Your task to perform on an android device: Open network settings Image 0: 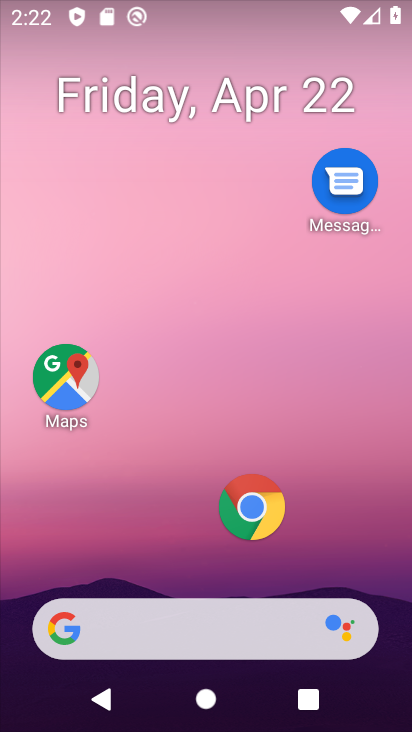
Step 0: drag from (210, 536) to (231, 8)
Your task to perform on an android device: Open network settings Image 1: 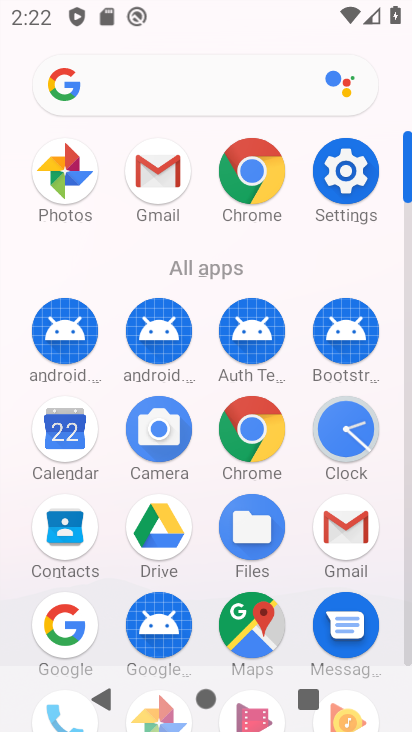
Step 1: click (344, 190)
Your task to perform on an android device: Open network settings Image 2: 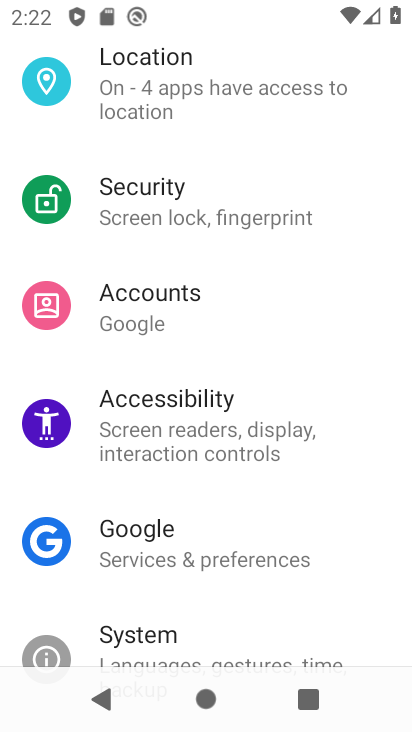
Step 2: drag from (164, 193) to (168, 339)
Your task to perform on an android device: Open network settings Image 3: 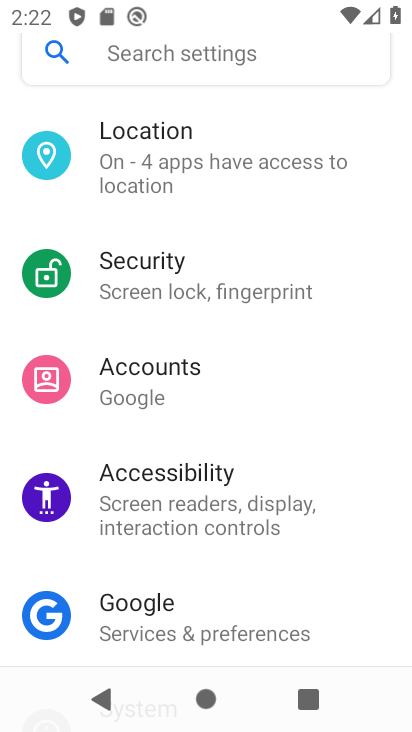
Step 3: drag from (184, 248) to (186, 422)
Your task to perform on an android device: Open network settings Image 4: 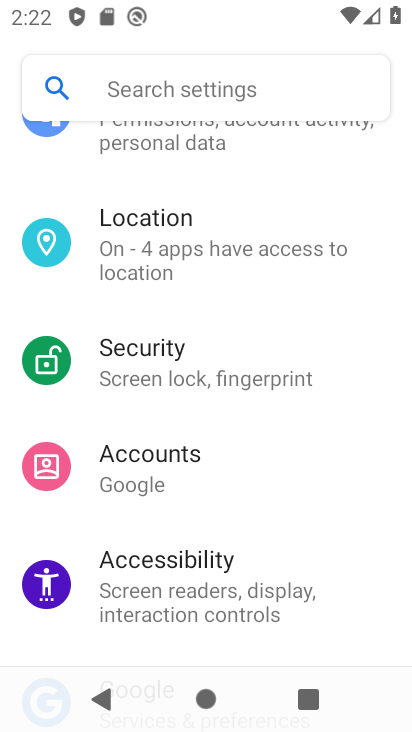
Step 4: drag from (189, 177) to (168, 542)
Your task to perform on an android device: Open network settings Image 5: 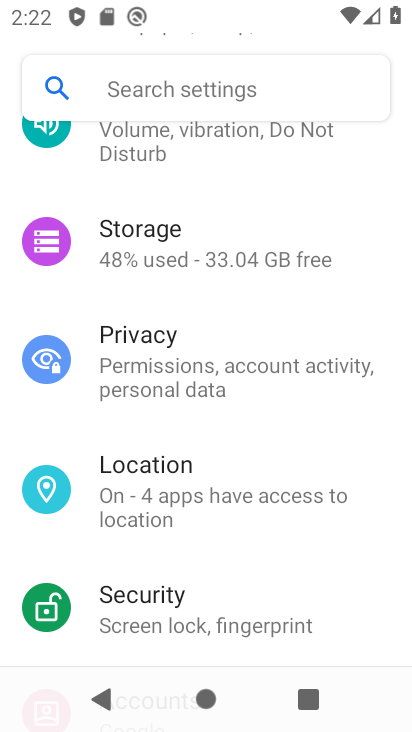
Step 5: drag from (225, 206) to (235, 588)
Your task to perform on an android device: Open network settings Image 6: 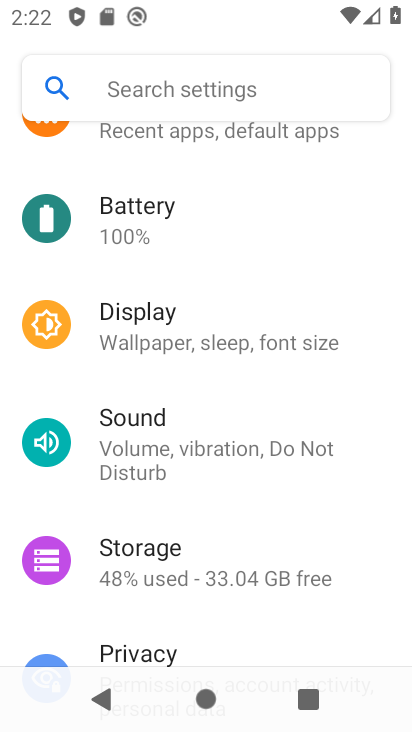
Step 6: drag from (237, 204) to (236, 498)
Your task to perform on an android device: Open network settings Image 7: 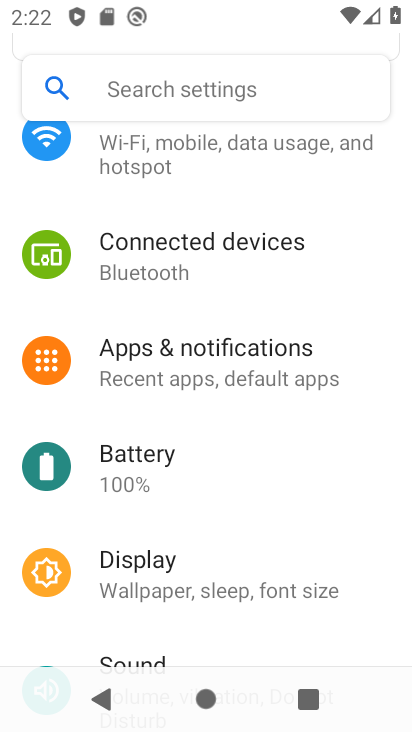
Step 7: drag from (194, 274) to (199, 568)
Your task to perform on an android device: Open network settings Image 8: 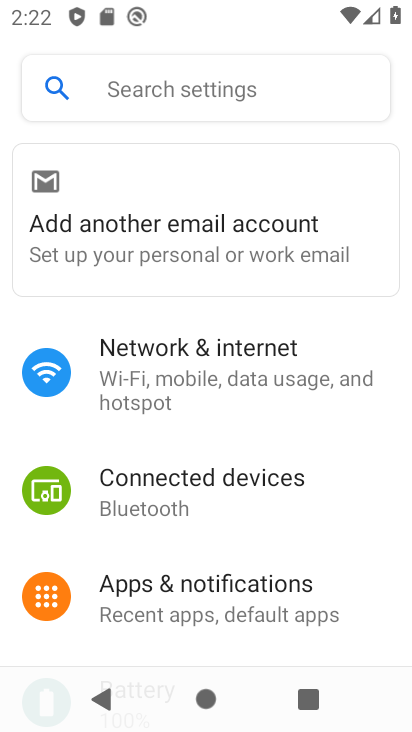
Step 8: click (187, 370)
Your task to perform on an android device: Open network settings Image 9: 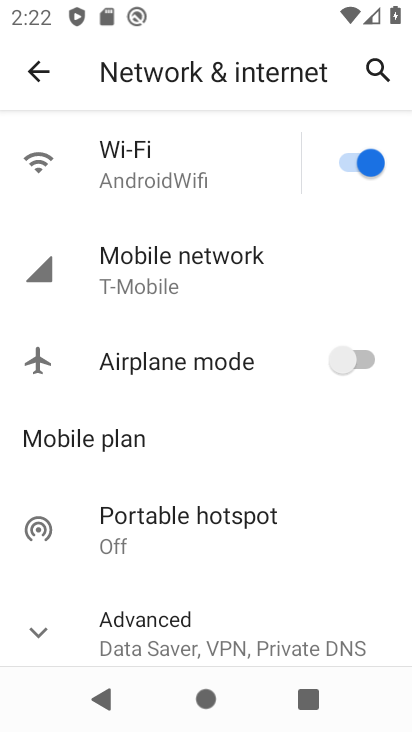
Step 9: task complete